Your task to perform on an android device: Search for the best rated 3d printer on Amazon. Image 0: 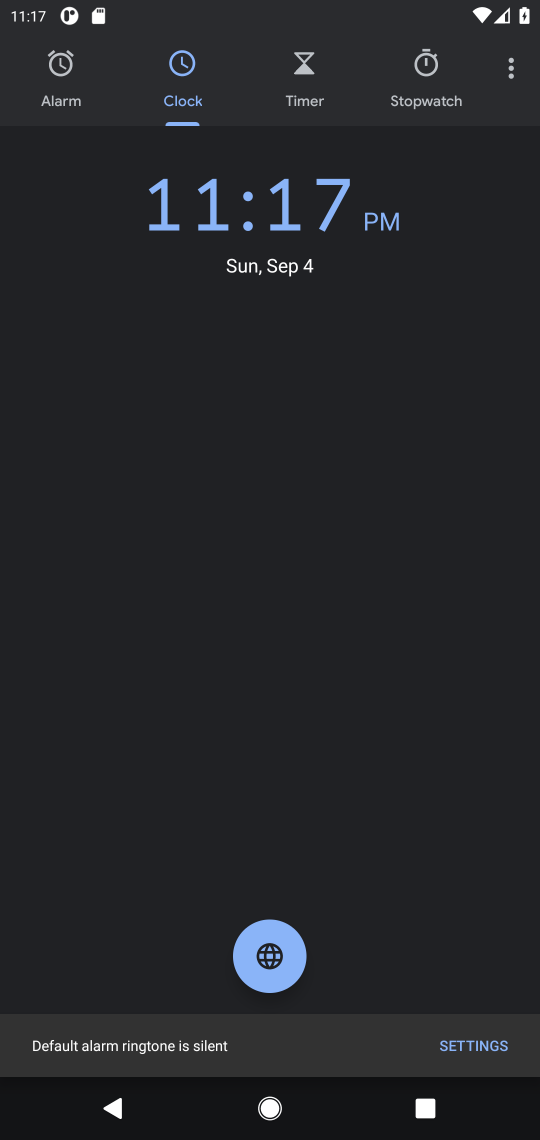
Step 0: press home button
Your task to perform on an android device: Search for the best rated 3d printer on Amazon. Image 1: 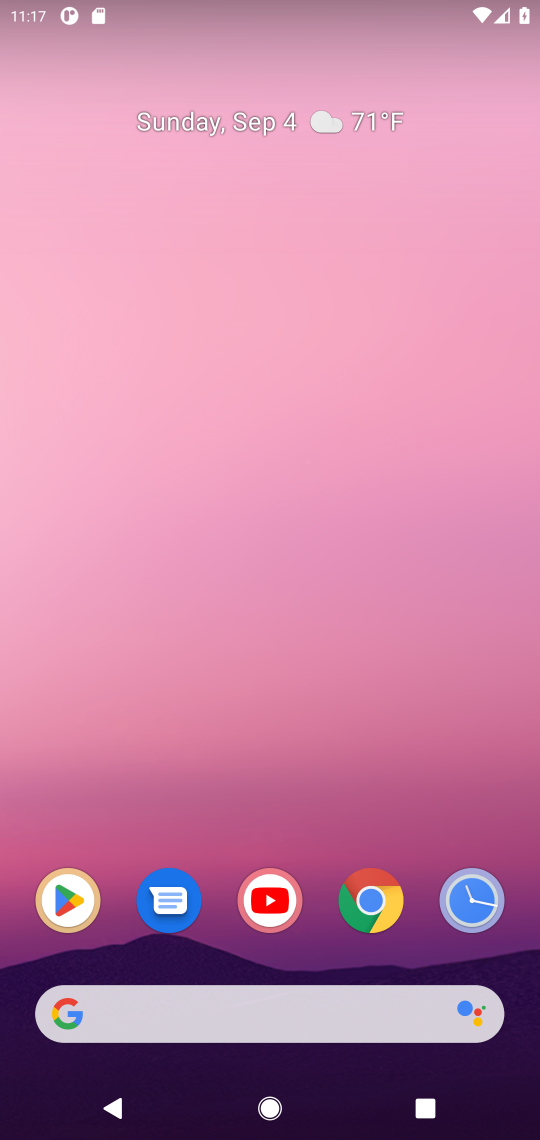
Step 1: click (369, 896)
Your task to perform on an android device: Search for the best rated 3d printer on Amazon. Image 2: 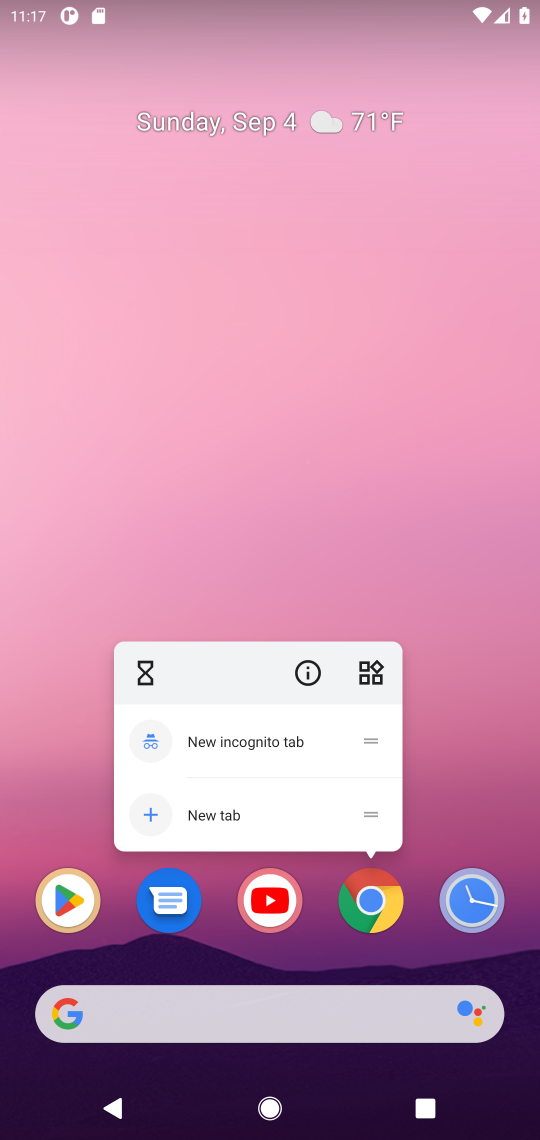
Step 2: click (359, 897)
Your task to perform on an android device: Search for the best rated 3d printer on Amazon. Image 3: 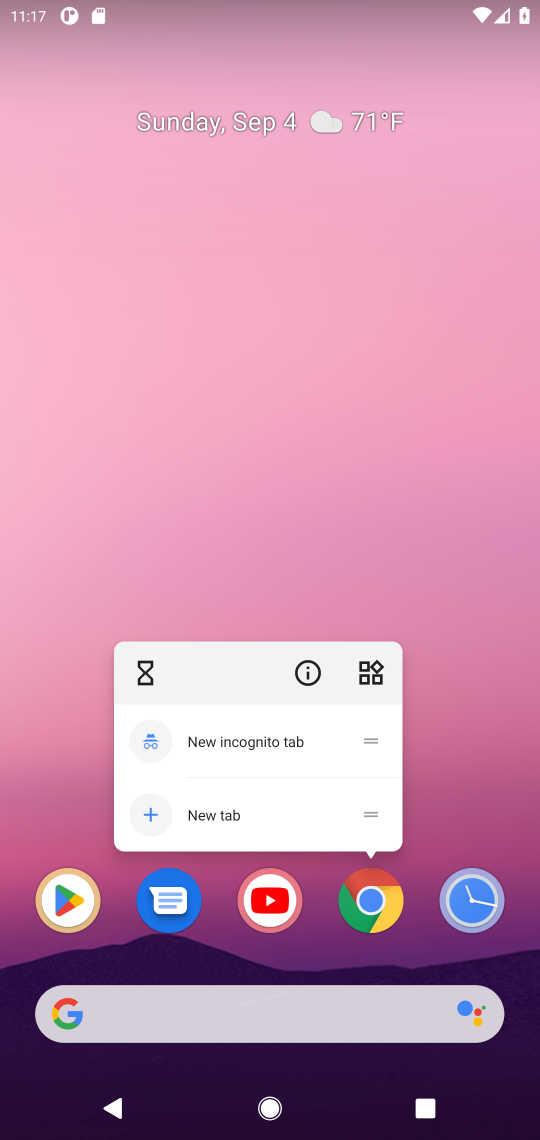
Step 3: click (358, 896)
Your task to perform on an android device: Search for the best rated 3d printer on Amazon. Image 4: 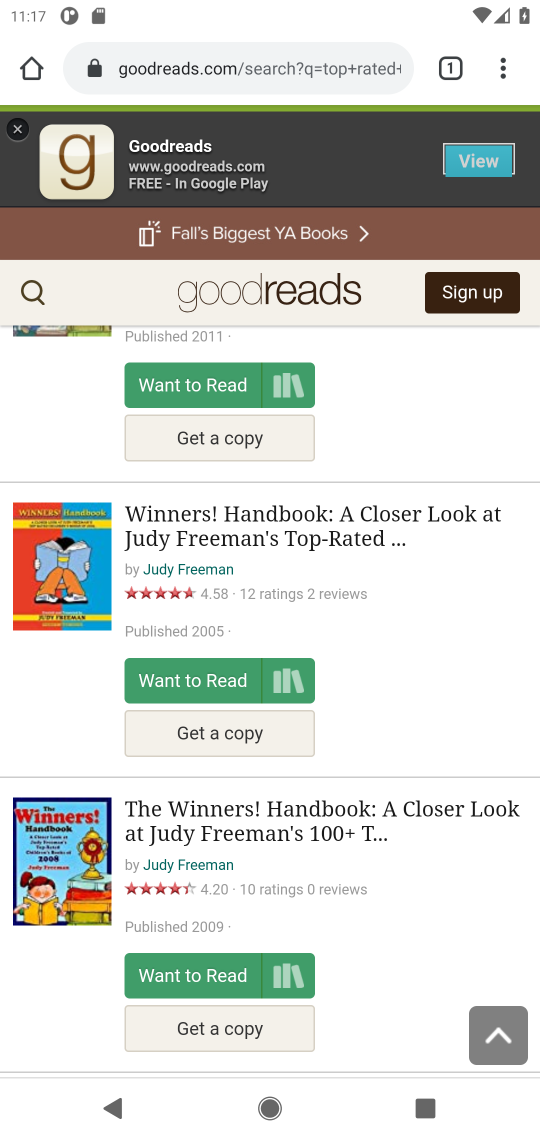
Step 4: click (270, 65)
Your task to perform on an android device: Search for the best rated 3d printer on Amazon. Image 5: 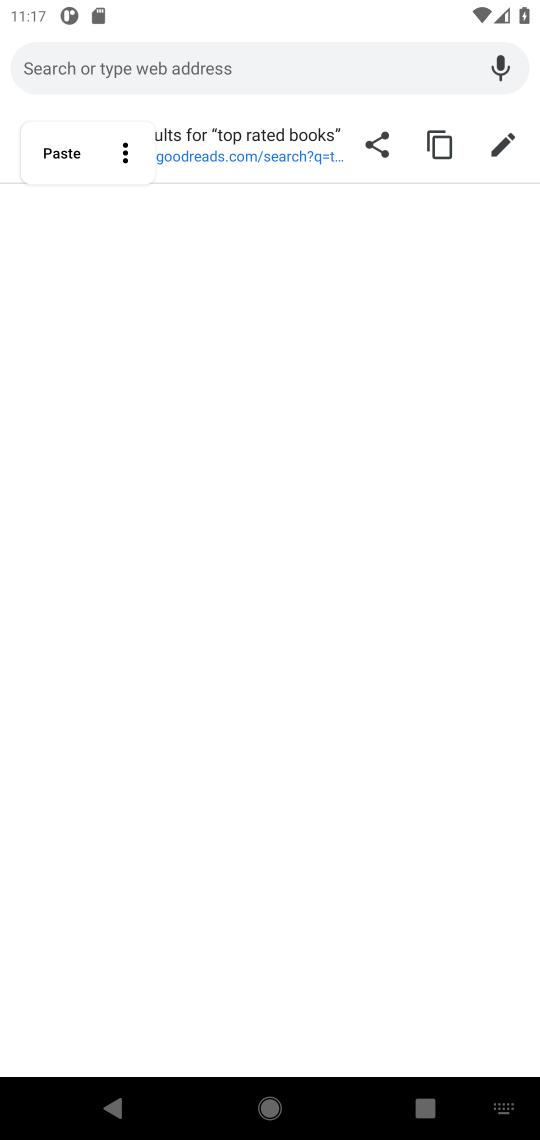
Step 5: type "Amazon"
Your task to perform on an android device: Search for the best rated 3d printer on Amazon. Image 6: 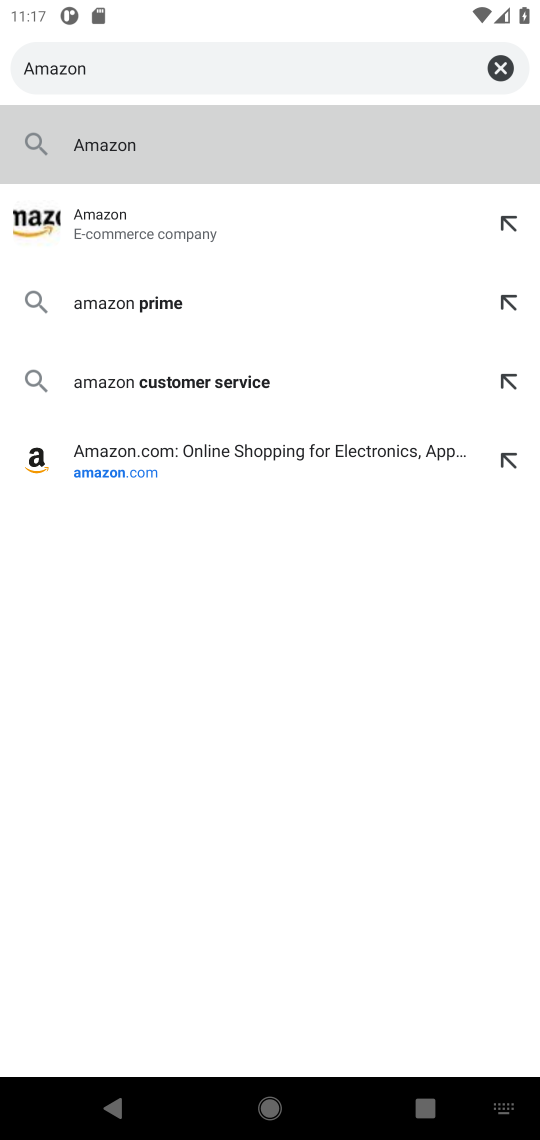
Step 6: press enter
Your task to perform on an android device: Search for the best rated 3d printer on Amazon. Image 7: 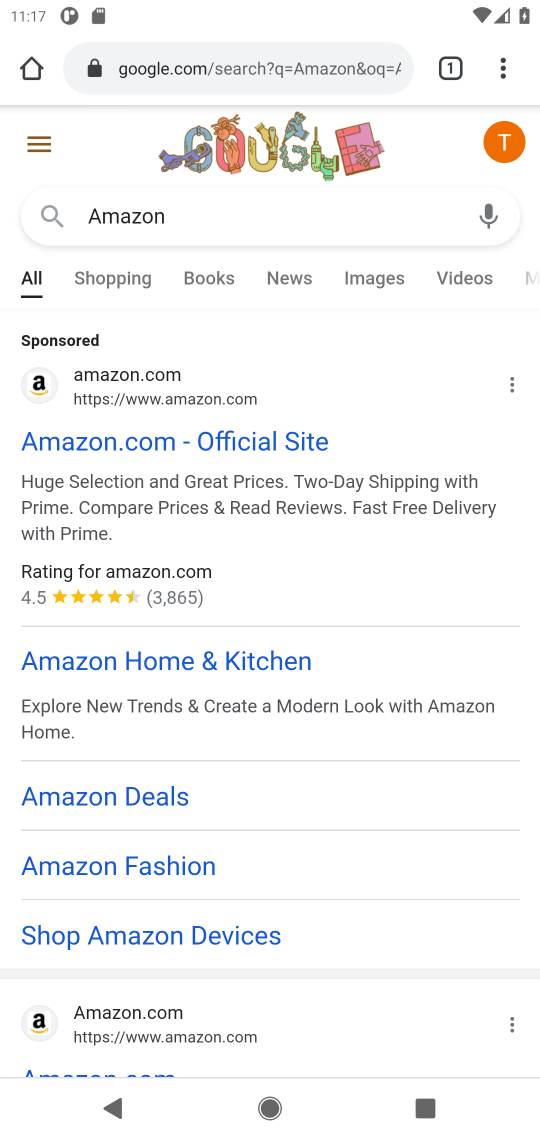
Step 7: click (207, 443)
Your task to perform on an android device: Search for the best rated 3d printer on Amazon. Image 8: 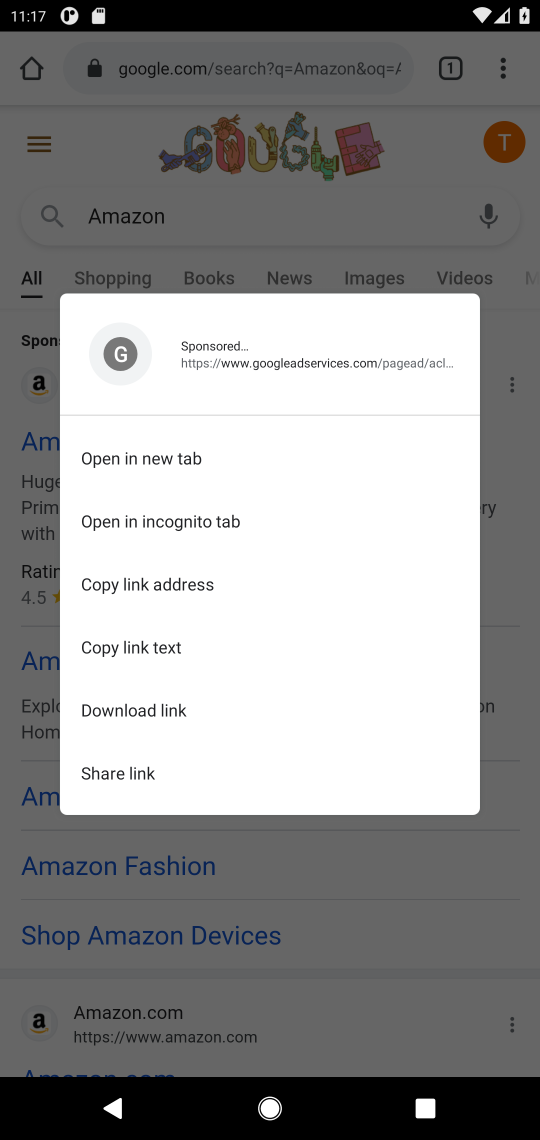
Step 8: click (509, 619)
Your task to perform on an android device: Search for the best rated 3d printer on Amazon. Image 9: 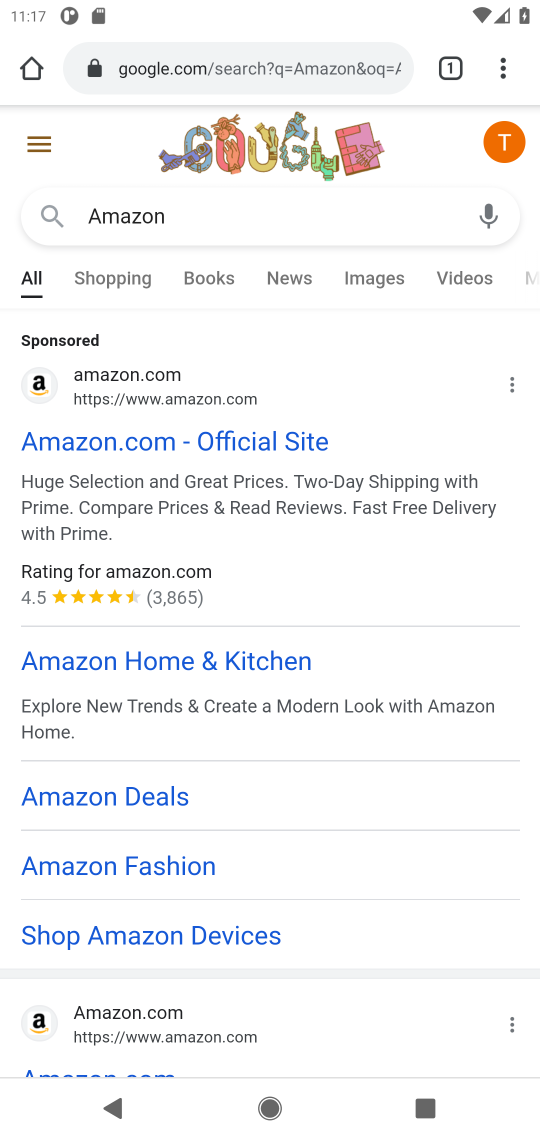
Step 9: click (94, 439)
Your task to perform on an android device: Search for the best rated 3d printer on Amazon. Image 10: 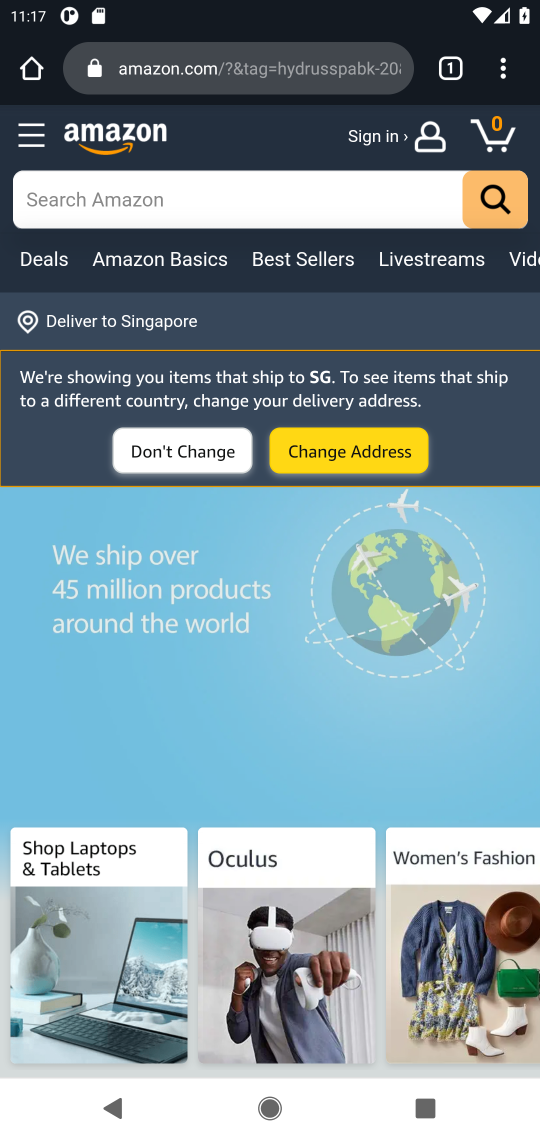
Step 10: click (287, 205)
Your task to perform on an android device: Search for the best rated 3d printer on Amazon. Image 11: 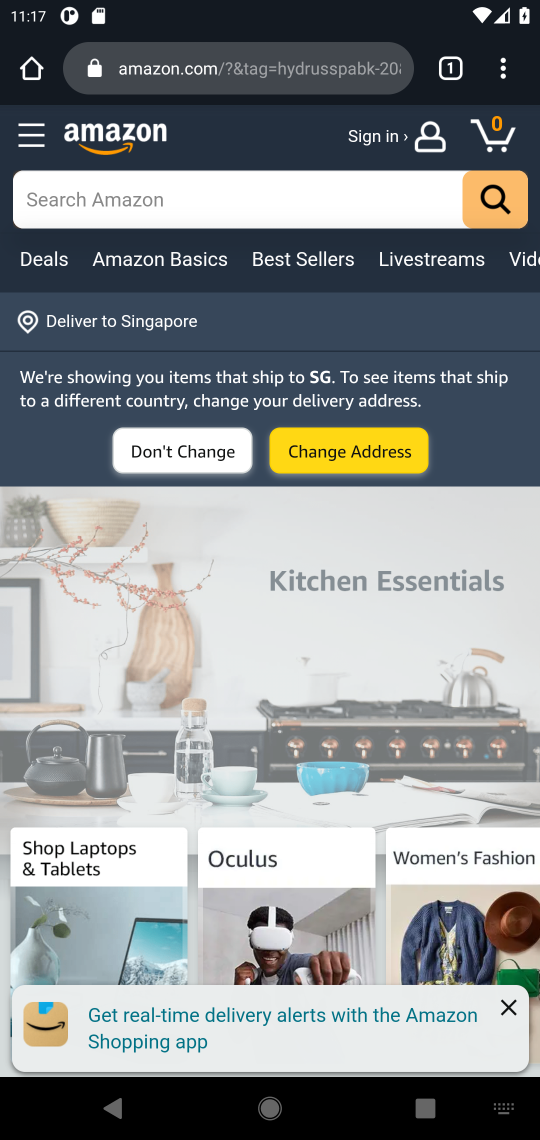
Step 11: click (246, 196)
Your task to perform on an android device: Search for the best rated 3d printer on Amazon. Image 12: 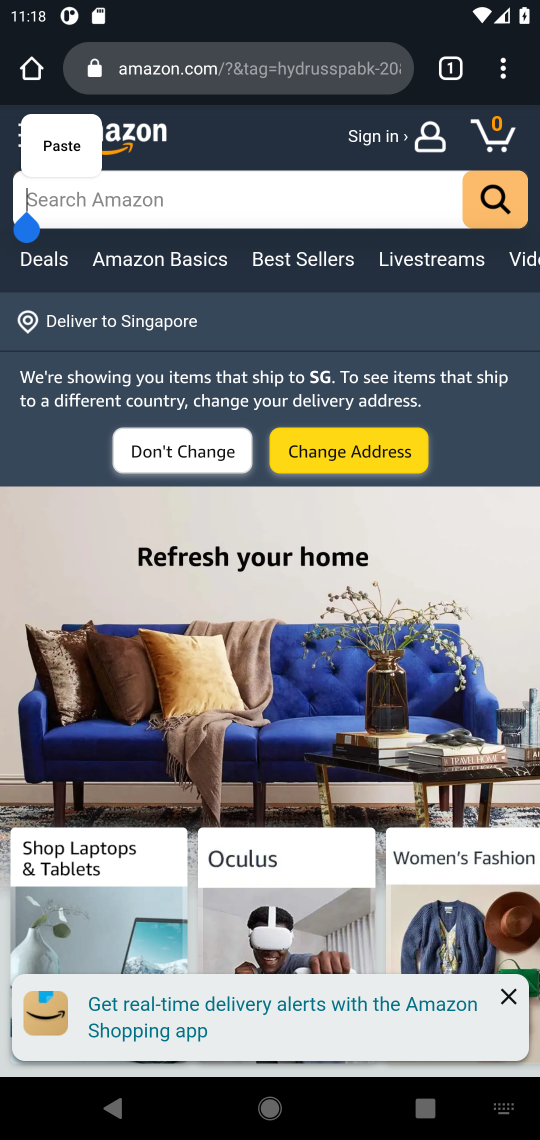
Step 12: type "3d printer"
Your task to perform on an android device: Search for the best rated 3d printer on Amazon. Image 13: 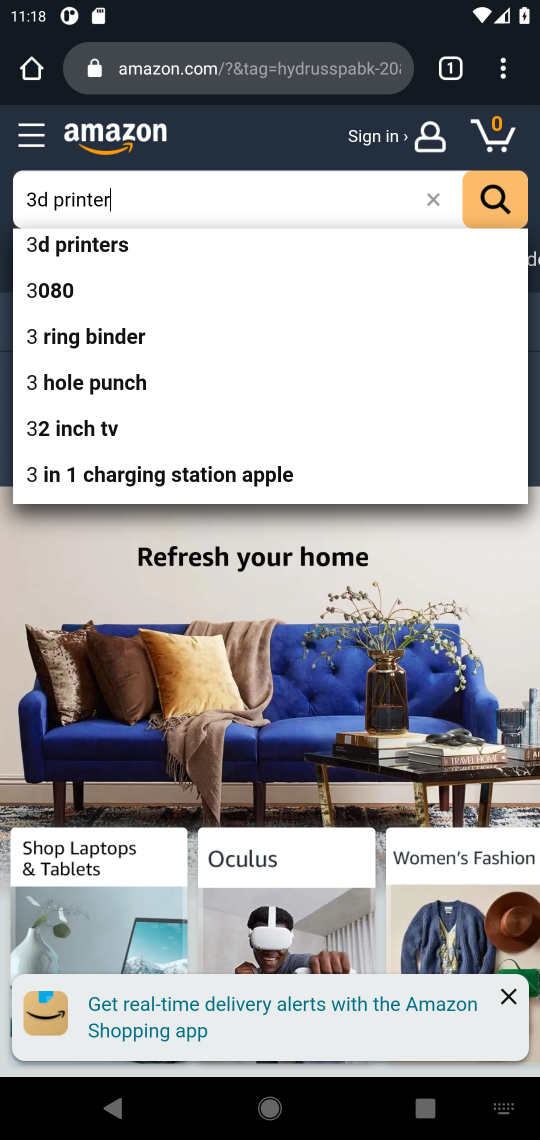
Step 13: press enter
Your task to perform on an android device: Search for the best rated 3d printer on Amazon. Image 14: 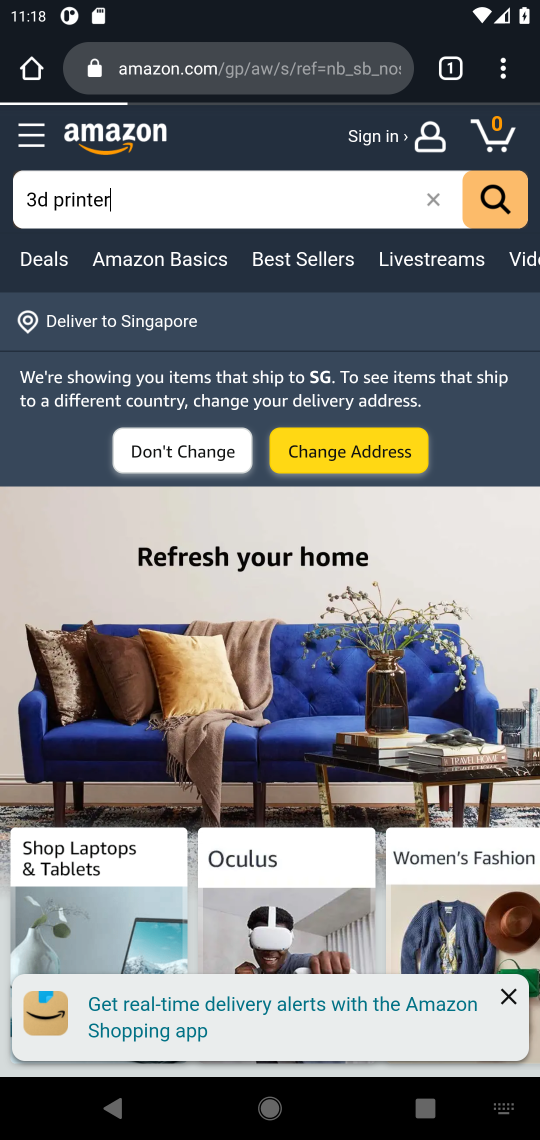
Step 14: click (110, 246)
Your task to perform on an android device: Search for the best rated 3d printer on Amazon. Image 15: 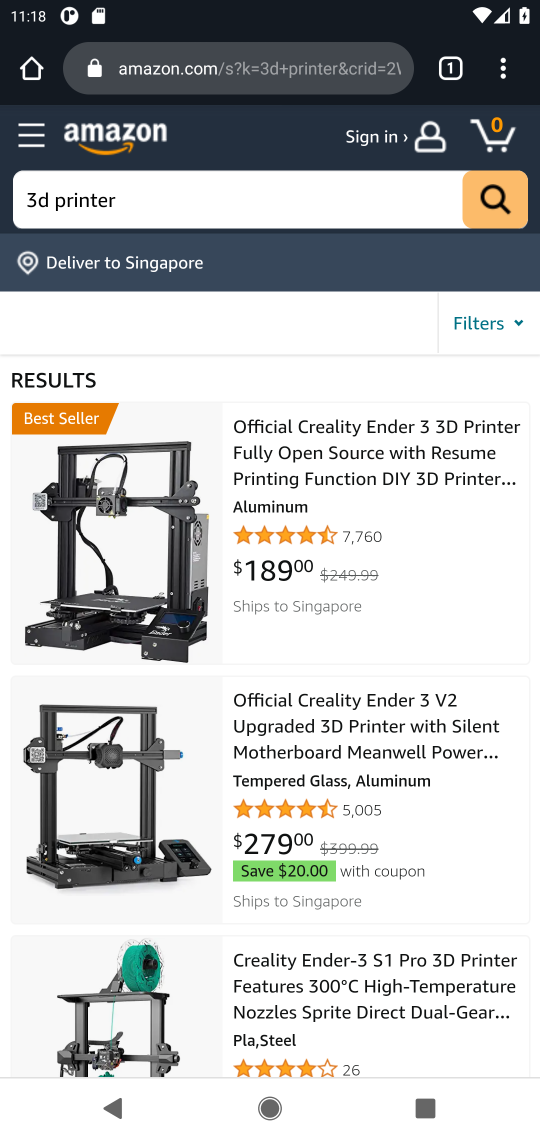
Step 15: click (463, 404)
Your task to perform on an android device: Search for the best rated 3d printer on Amazon. Image 16: 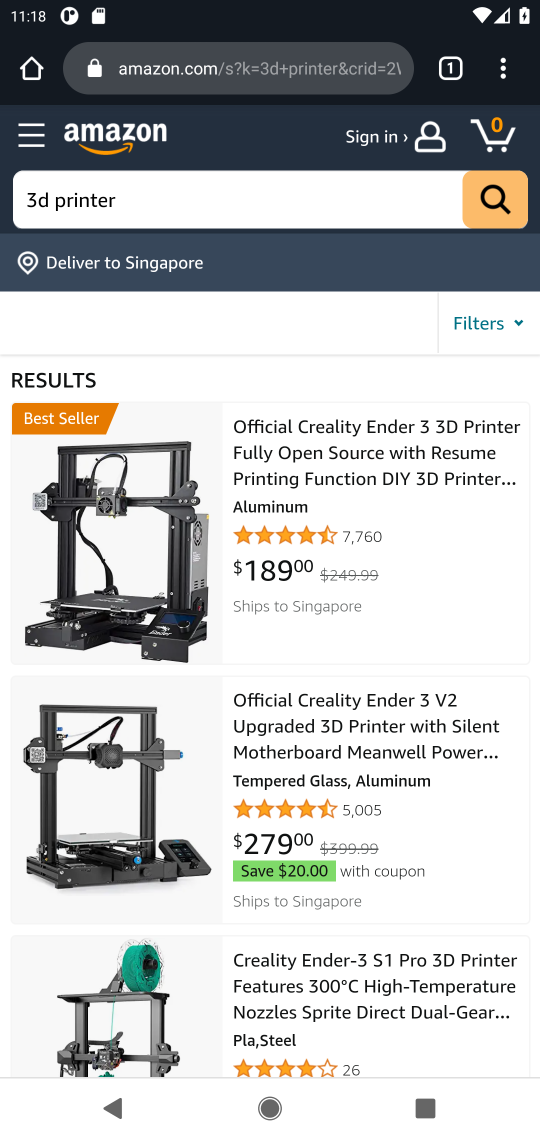
Step 16: task complete